Your task to perform on an android device: When is my next meeting? Image 0: 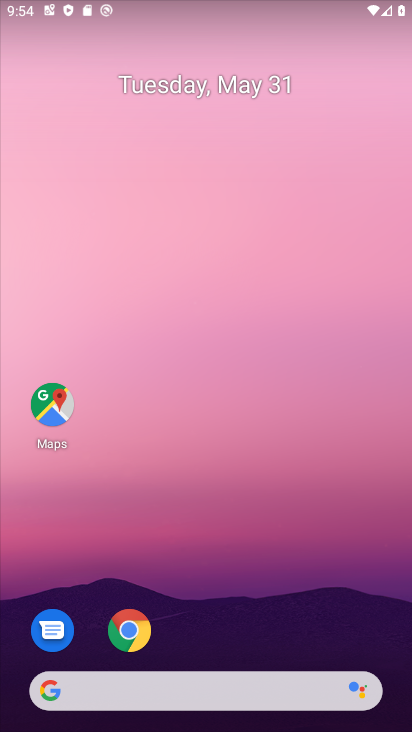
Step 0: drag from (255, 656) to (265, 204)
Your task to perform on an android device: When is my next meeting? Image 1: 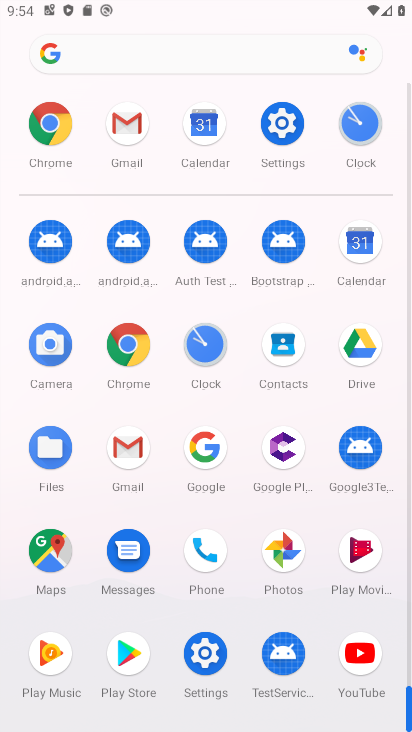
Step 1: click (359, 262)
Your task to perform on an android device: When is my next meeting? Image 2: 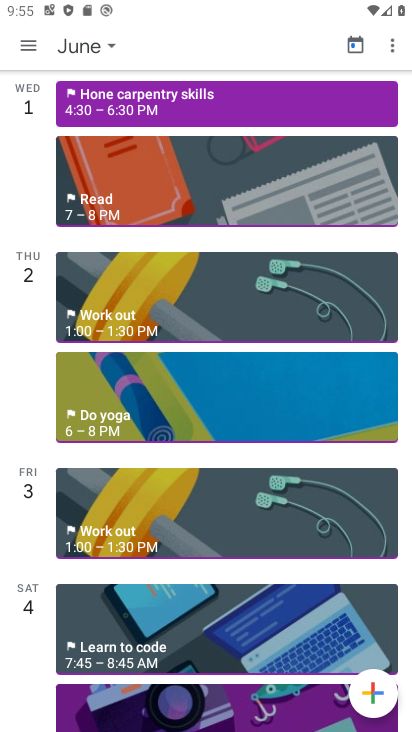
Step 2: click (28, 44)
Your task to perform on an android device: When is my next meeting? Image 3: 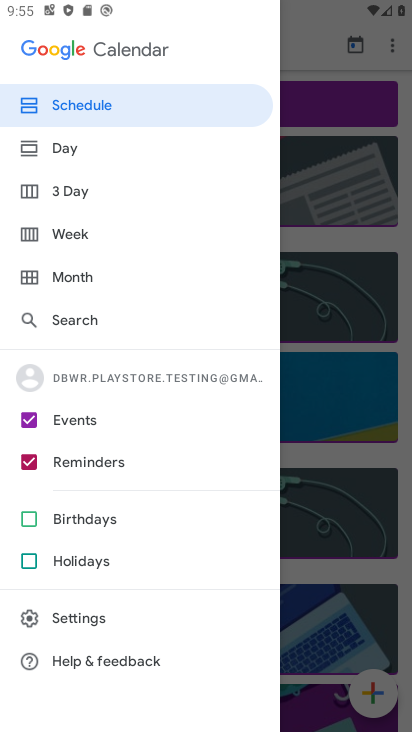
Step 3: click (362, 300)
Your task to perform on an android device: When is my next meeting? Image 4: 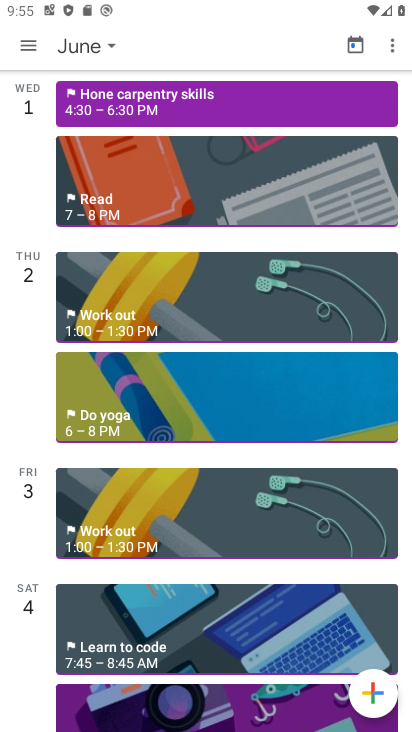
Step 4: task complete